Your task to perform on an android device: change timer sound Image 0: 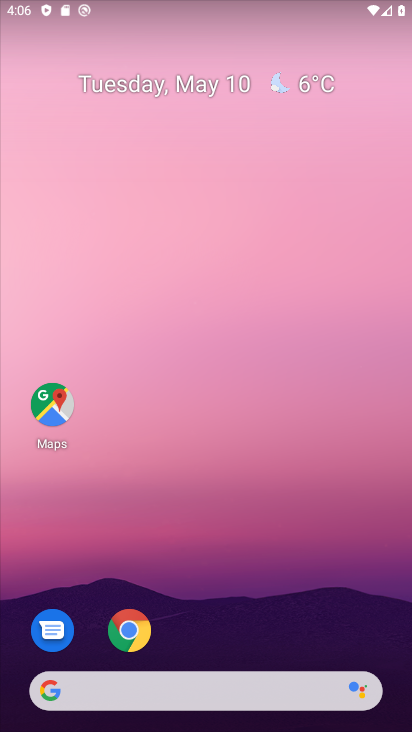
Step 0: drag from (212, 477) to (140, 33)
Your task to perform on an android device: change timer sound Image 1: 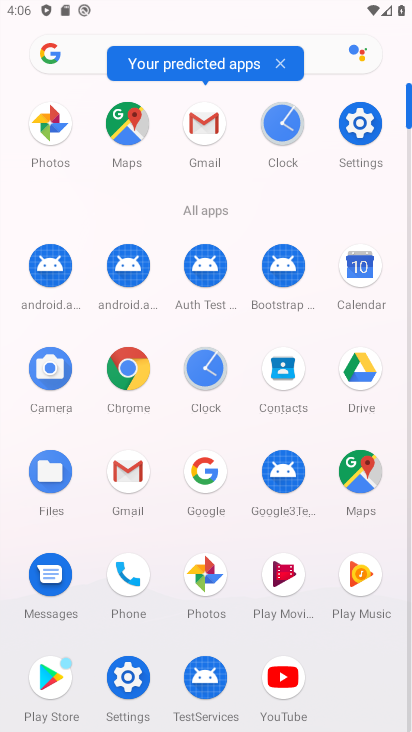
Step 1: click (365, 125)
Your task to perform on an android device: change timer sound Image 2: 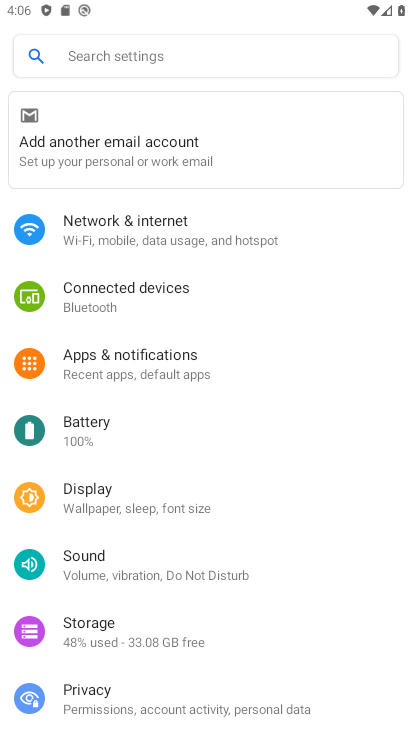
Step 2: drag from (194, 515) to (263, 177)
Your task to perform on an android device: change timer sound Image 3: 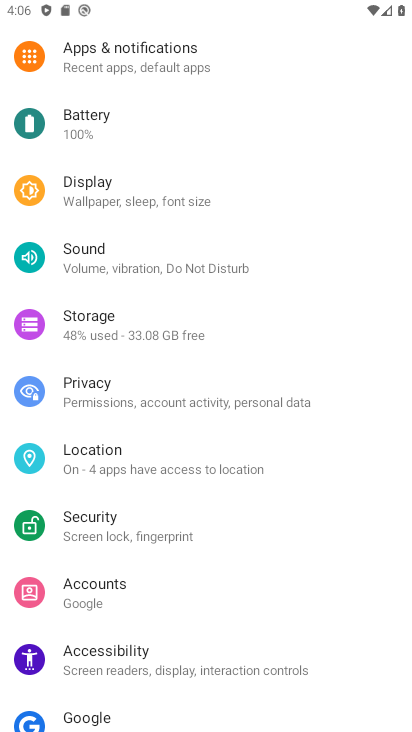
Step 3: click (107, 255)
Your task to perform on an android device: change timer sound Image 4: 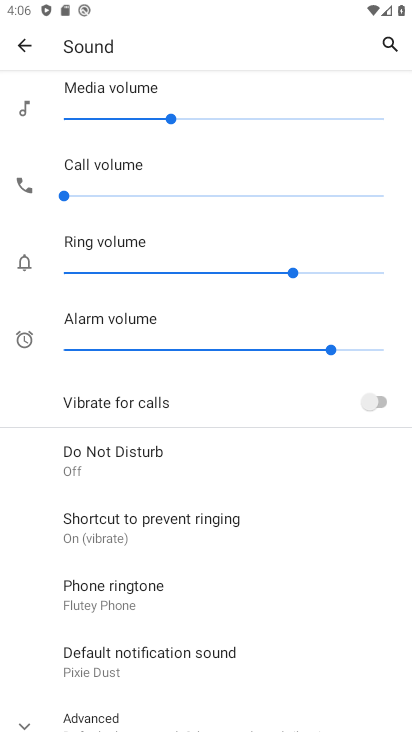
Step 4: click (24, 50)
Your task to perform on an android device: change timer sound Image 5: 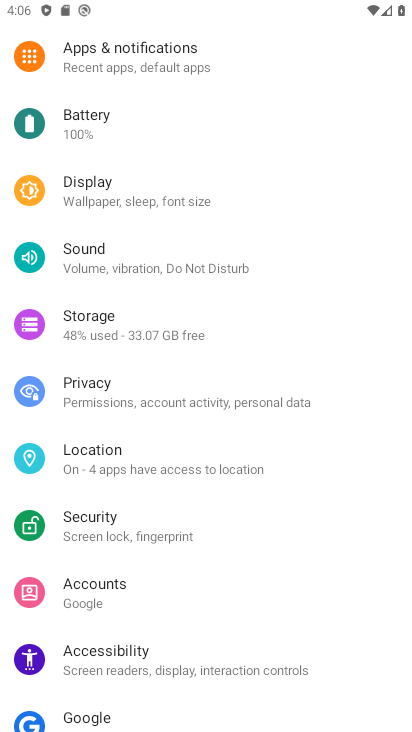
Step 5: drag from (224, 536) to (234, 608)
Your task to perform on an android device: change timer sound Image 6: 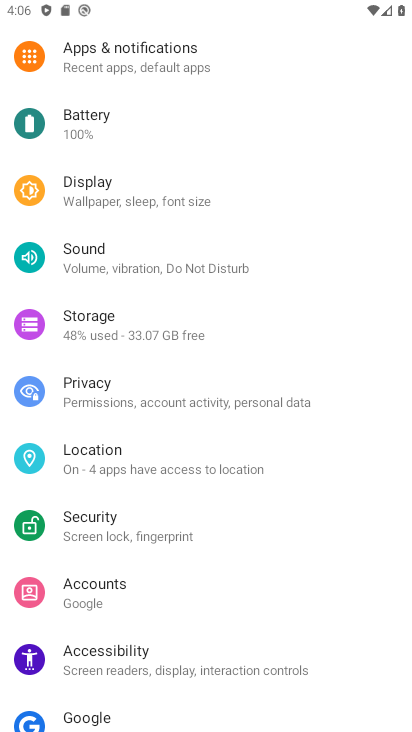
Step 6: click (147, 71)
Your task to perform on an android device: change timer sound Image 7: 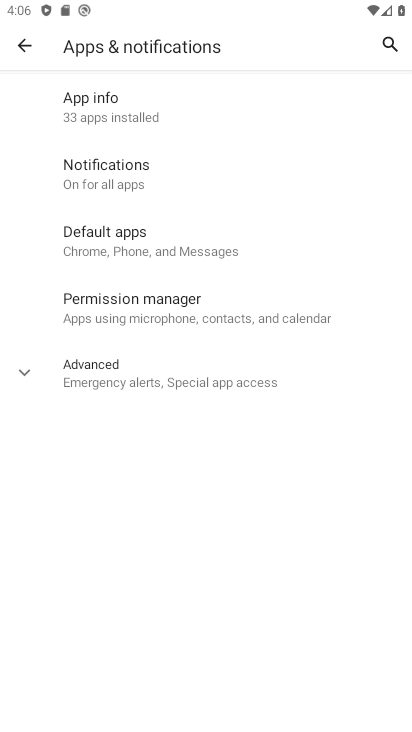
Step 7: click (114, 113)
Your task to perform on an android device: change timer sound Image 8: 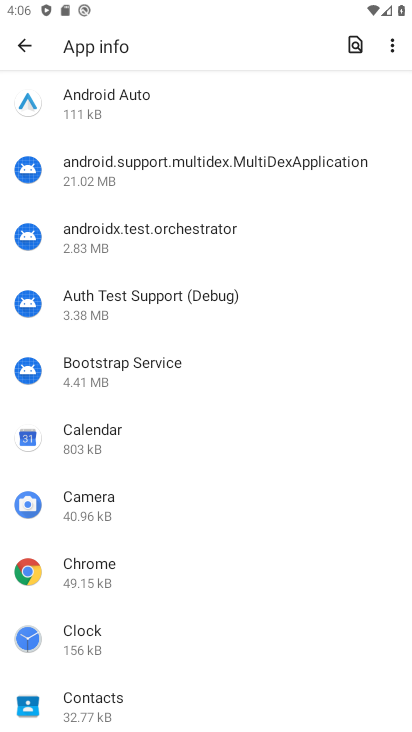
Step 8: drag from (241, 592) to (278, 308)
Your task to perform on an android device: change timer sound Image 9: 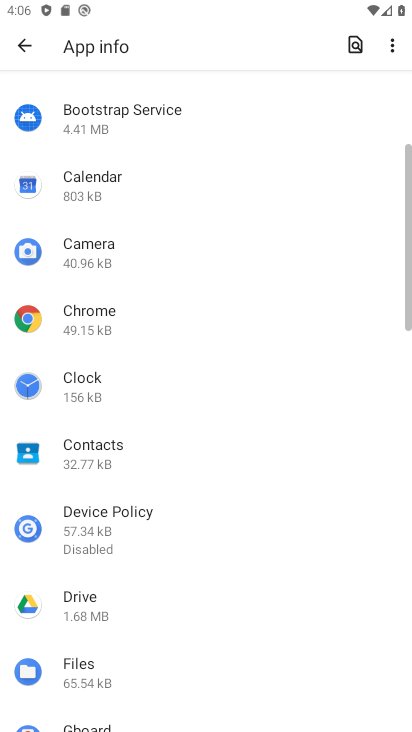
Step 9: click (94, 399)
Your task to perform on an android device: change timer sound Image 10: 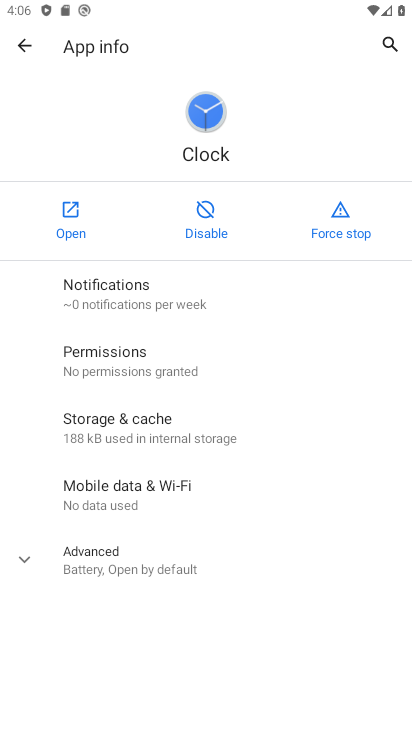
Step 10: click (75, 225)
Your task to perform on an android device: change timer sound Image 11: 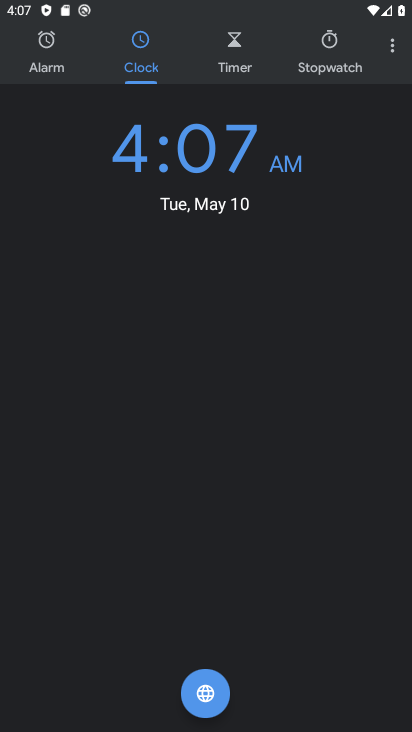
Step 11: click (392, 48)
Your task to perform on an android device: change timer sound Image 12: 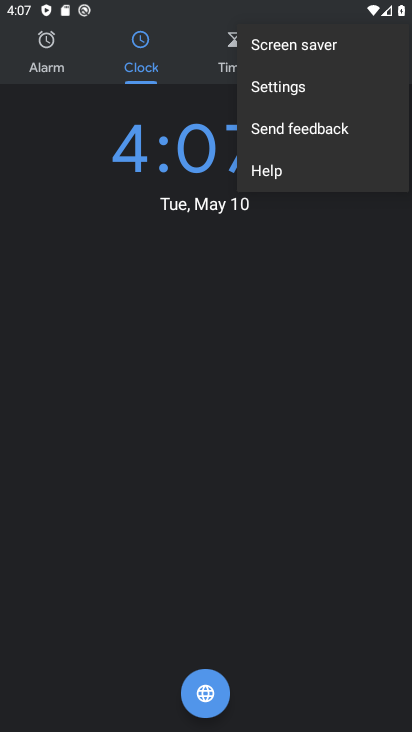
Step 12: click (293, 87)
Your task to perform on an android device: change timer sound Image 13: 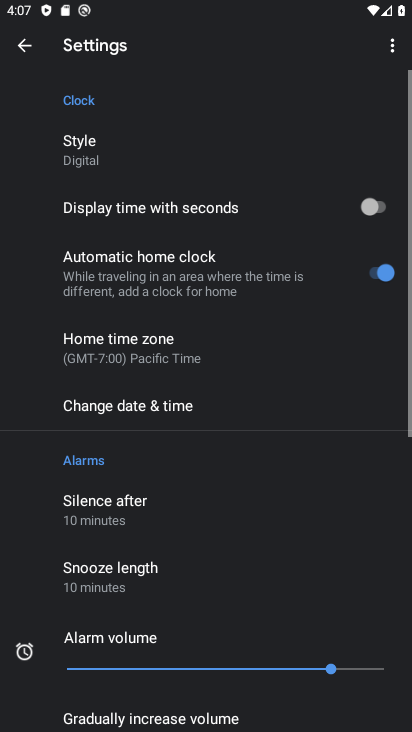
Step 13: drag from (251, 530) to (255, 109)
Your task to perform on an android device: change timer sound Image 14: 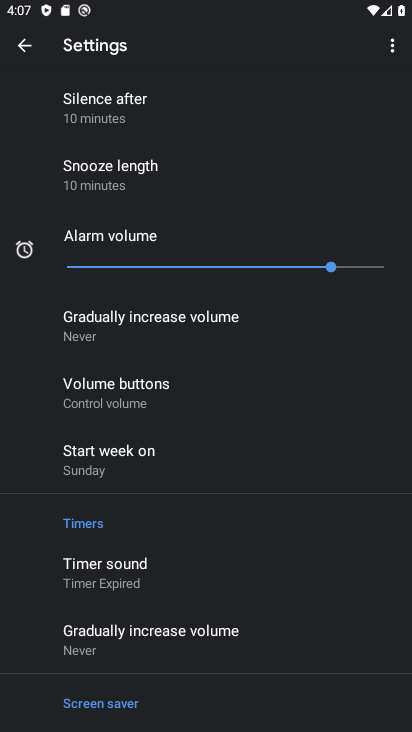
Step 14: drag from (182, 615) to (209, 434)
Your task to perform on an android device: change timer sound Image 15: 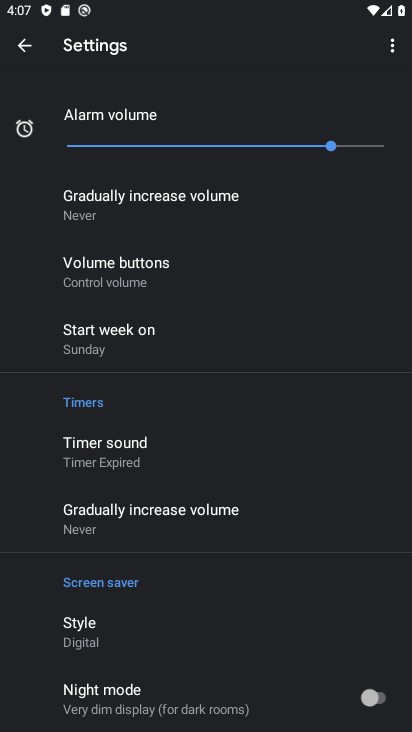
Step 15: click (79, 456)
Your task to perform on an android device: change timer sound Image 16: 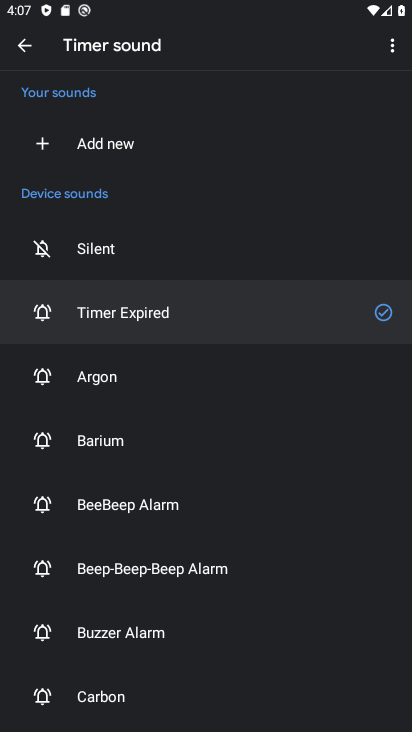
Step 16: click (109, 378)
Your task to perform on an android device: change timer sound Image 17: 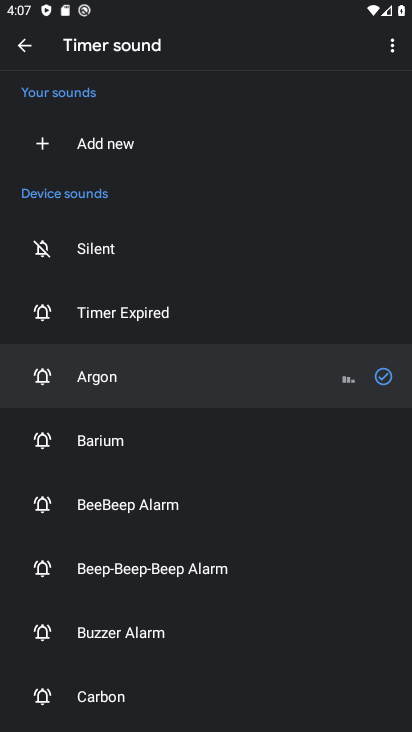
Step 17: task complete